Your task to perform on an android device: turn on the 12-hour format for clock Image 0: 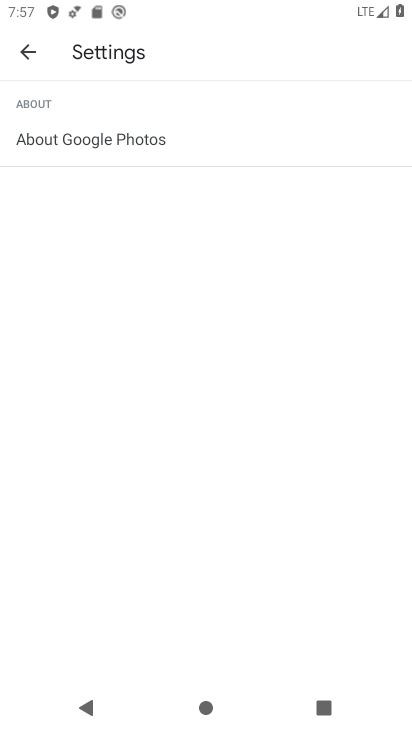
Step 0: press back button
Your task to perform on an android device: turn on the 12-hour format for clock Image 1: 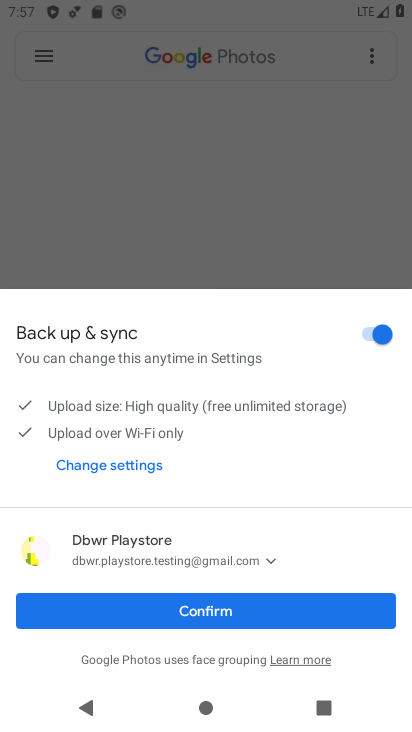
Step 1: press back button
Your task to perform on an android device: turn on the 12-hour format for clock Image 2: 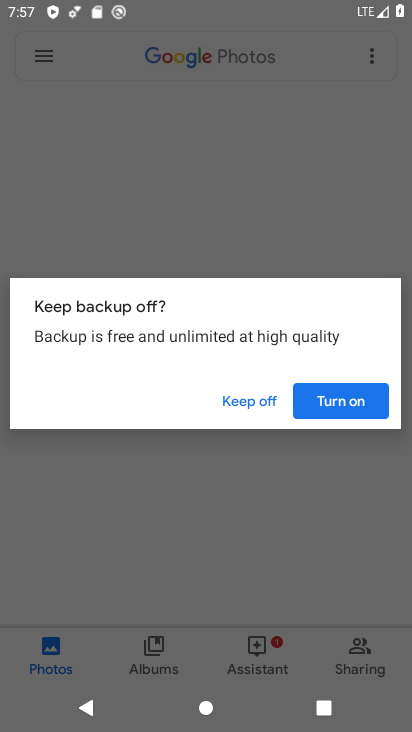
Step 2: press back button
Your task to perform on an android device: turn on the 12-hour format for clock Image 3: 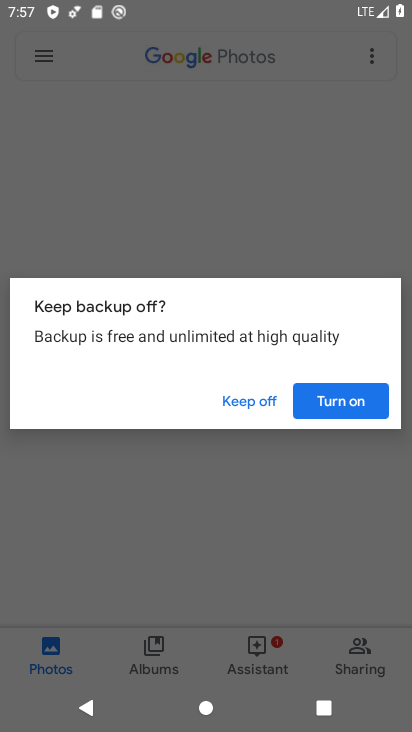
Step 3: press home button
Your task to perform on an android device: turn on the 12-hour format for clock Image 4: 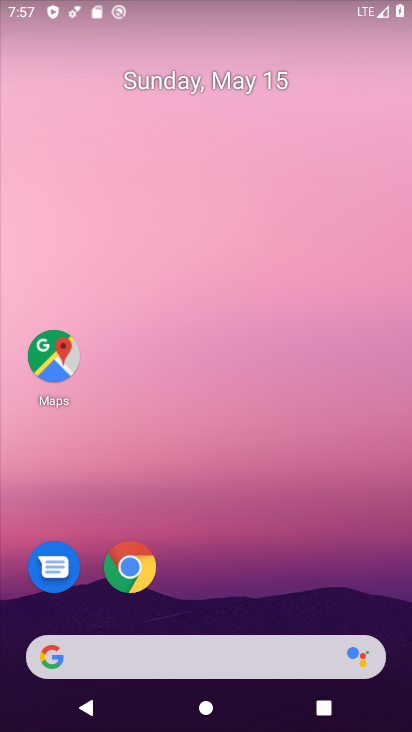
Step 4: drag from (185, 594) to (234, 35)
Your task to perform on an android device: turn on the 12-hour format for clock Image 5: 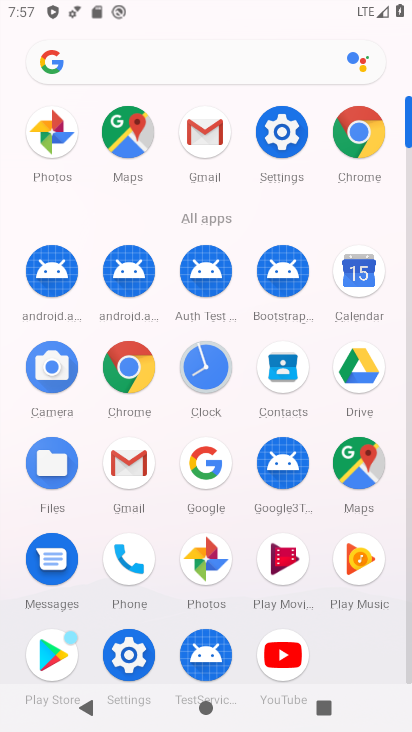
Step 5: click (201, 362)
Your task to perform on an android device: turn on the 12-hour format for clock Image 6: 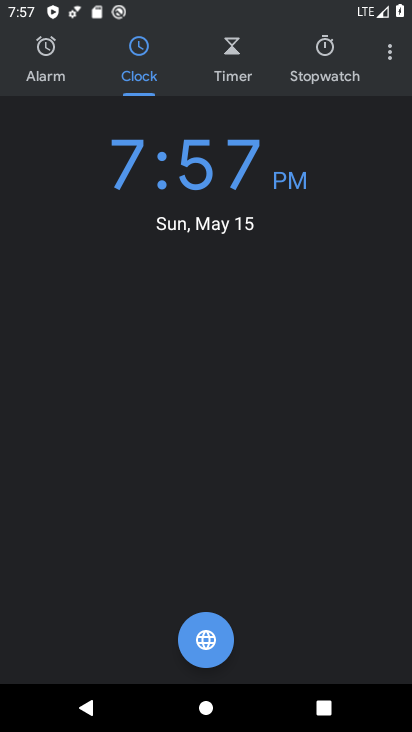
Step 6: click (386, 52)
Your task to perform on an android device: turn on the 12-hour format for clock Image 7: 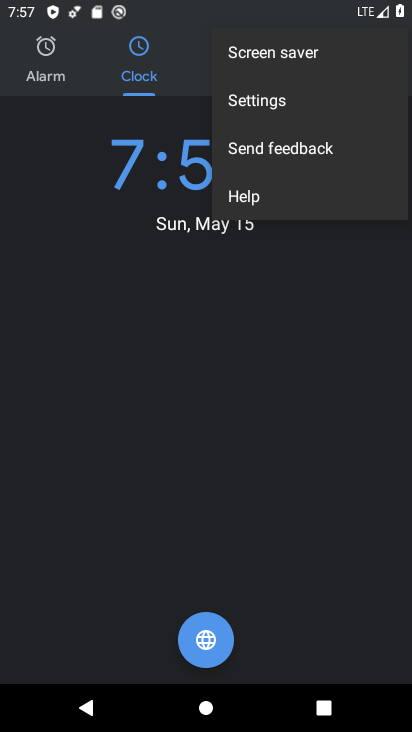
Step 7: click (312, 101)
Your task to perform on an android device: turn on the 12-hour format for clock Image 8: 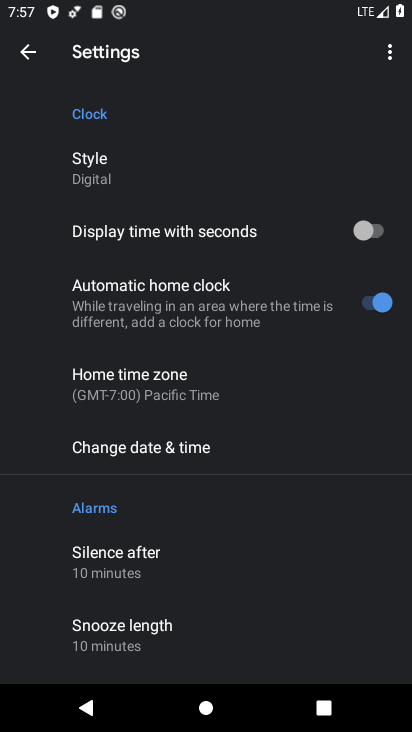
Step 8: click (137, 450)
Your task to perform on an android device: turn on the 12-hour format for clock Image 9: 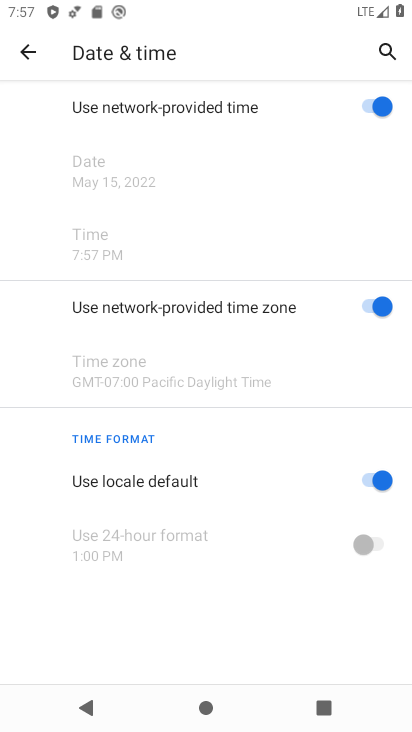
Step 9: task complete